Your task to perform on an android device: Show me popular videos on Youtube Image 0: 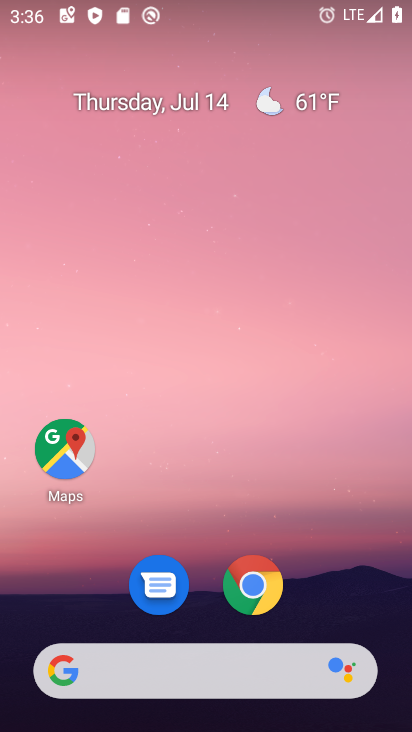
Step 0: drag from (222, 536) to (240, 0)
Your task to perform on an android device: Show me popular videos on Youtube Image 1: 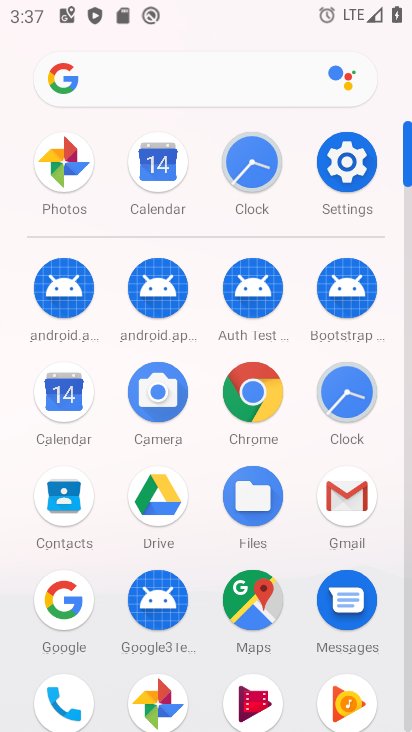
Step 1: drag from (288, 540) to (337, 324)
Your task to perform on an android device: Show me popular videos on Youtube Image 2: 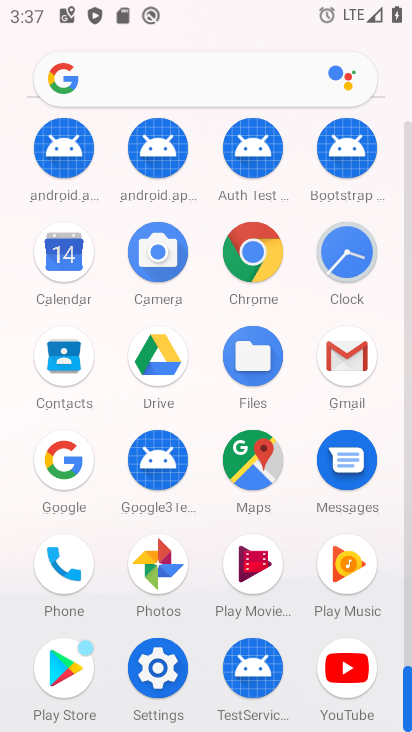
Step 2: click (351, 666)
Your task to perform on an android device: Show me popular videos on Youtube Image 3: 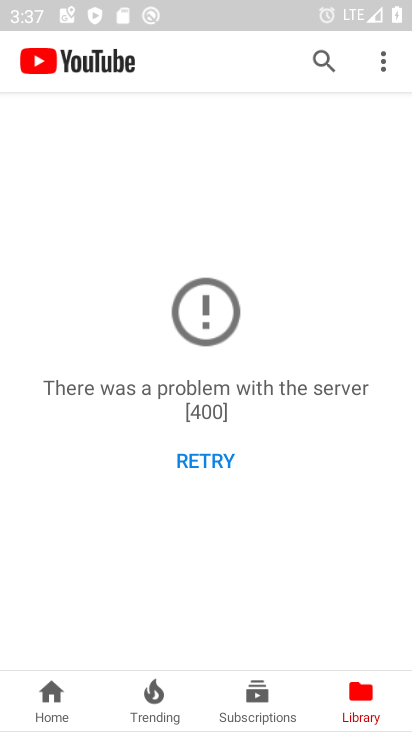
Step 3: task complete